Your task to perform on an android device: turn off javascript in the chrome app Image 0: 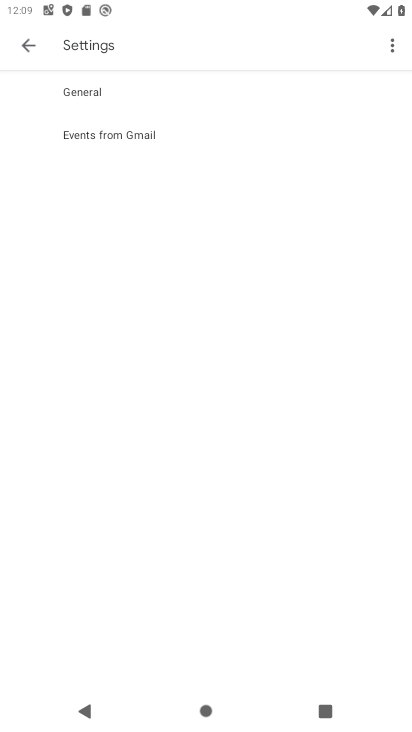
Step 0: press home button
Your task to perform on an android device: turn off javascript in the chrome app Image 1: 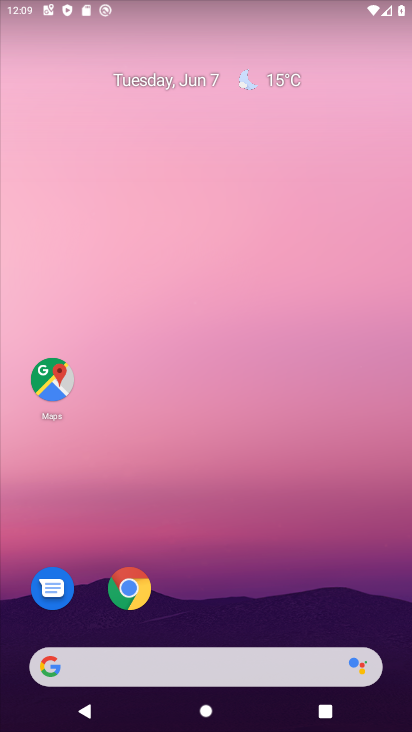
Step 1: click (125, 576)
Your task to perform on an android device: turn off javascript in the chrome app Image 2: 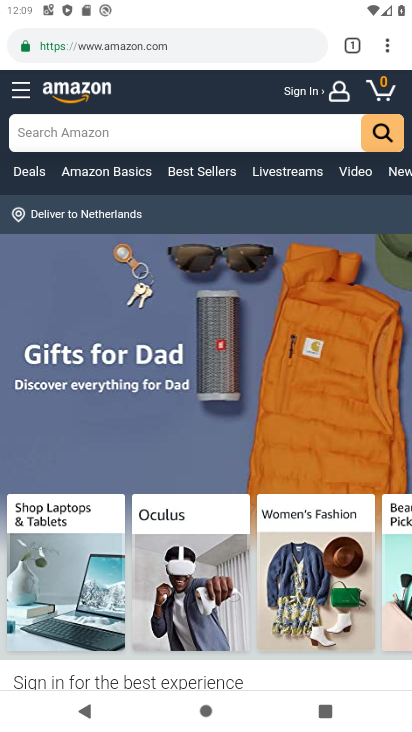
Step 2: click (386, 38)
Your task to perform on an android device: turn off javascript in the chrome app Image 3: 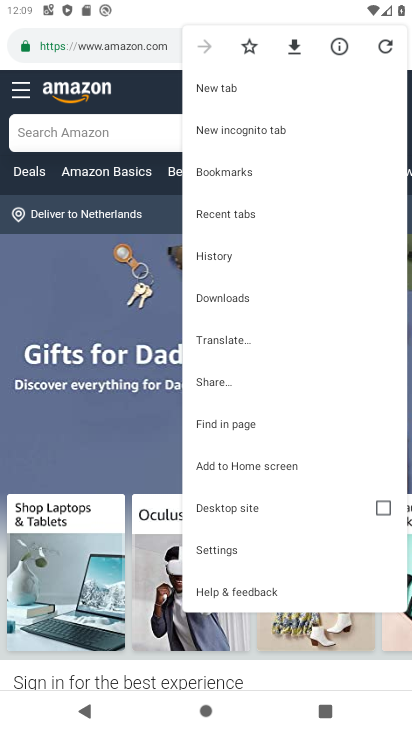
Step 3: click (248, 548)
Your task to perform on an android device: turn off javascript in the chrome app Image 4: 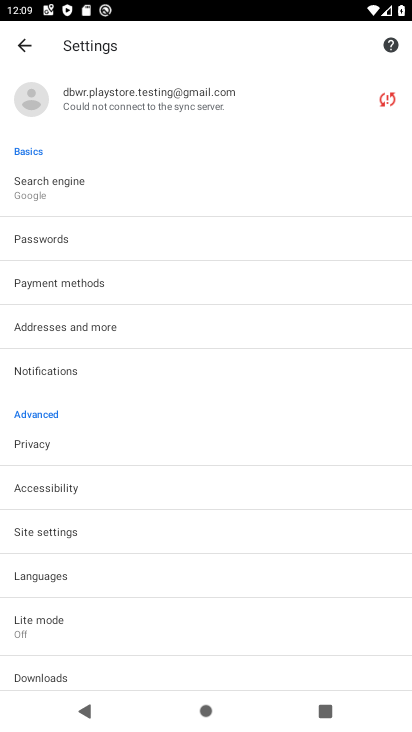
Step 4: click (71, 534)
Your task to perform on an android device: turn off javascript in the chrome app Image 5: 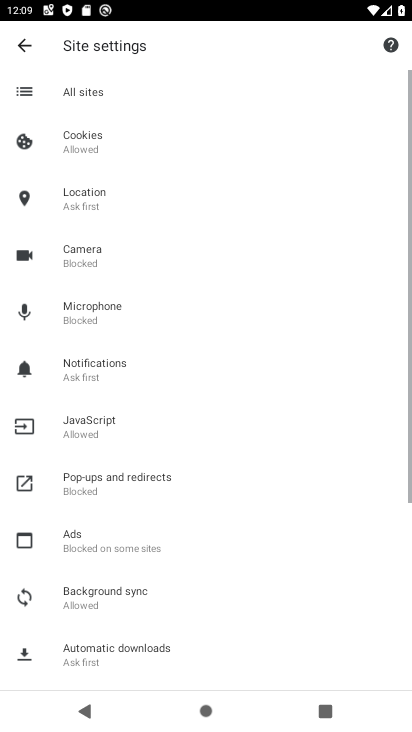
Step 5: click (108, 414)
Your task to perform on an android device: turn off javascript in the chrome app Image 6: 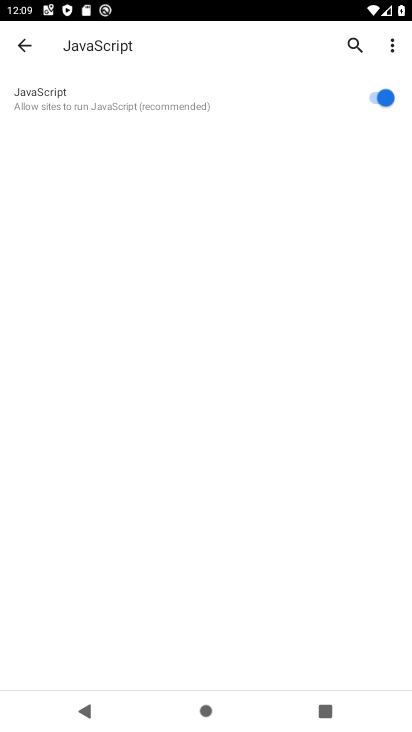
Step 6: click (372, 93)
Your task to perform on an android device: turn off javascript in the chrome app Image 7: 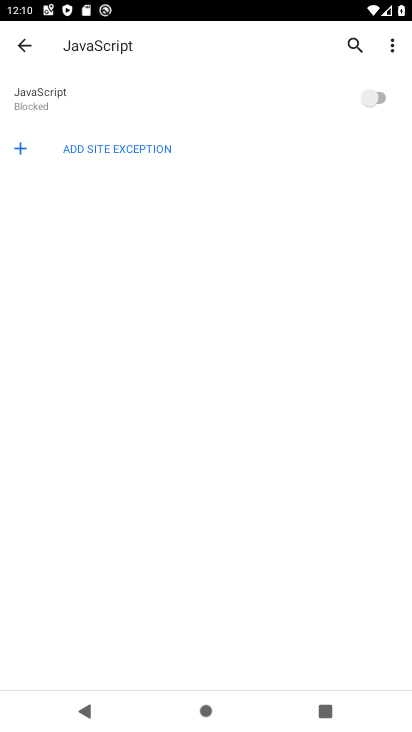
Step 7: task complete